Your task to perform on an android device: toggle airplane mode Image 0: 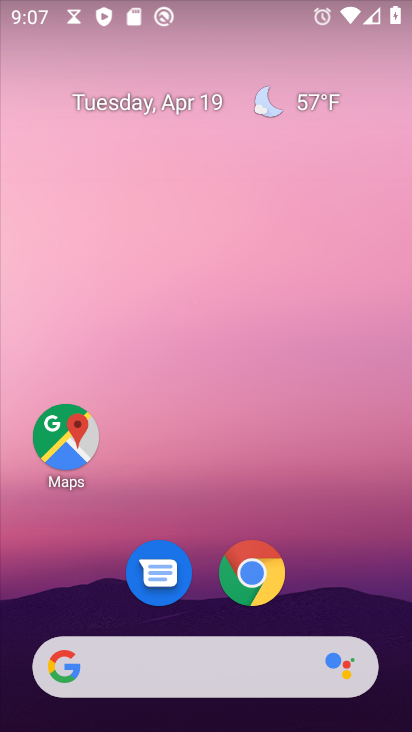
Step 0: drag from (351, 507) to (321, 107)
Your task to perform on an android device: toggle airplane mode Image 1: 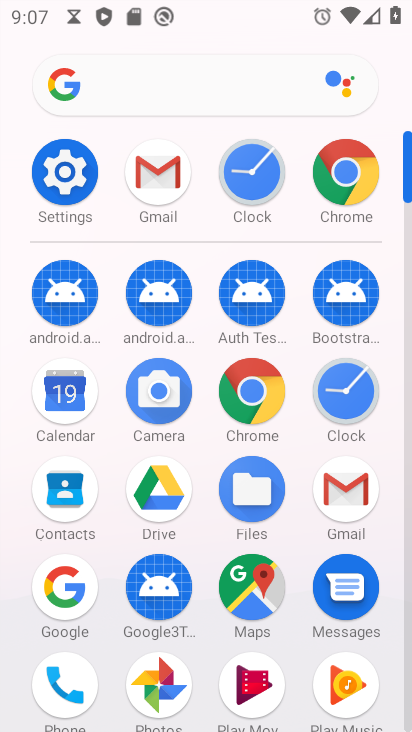
Step 1: click (85, 183)
Your task to perform on an android device: toggle airplane mode Image 2: 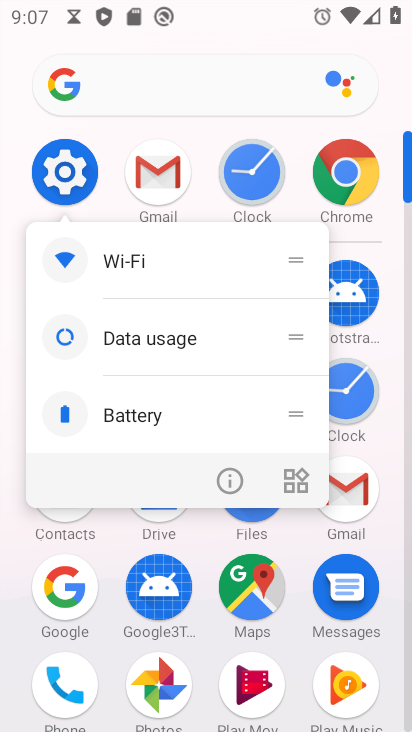
Step 2: click (55, 188)
Your task to perform on an android device: toggle airplane mode Image 3: 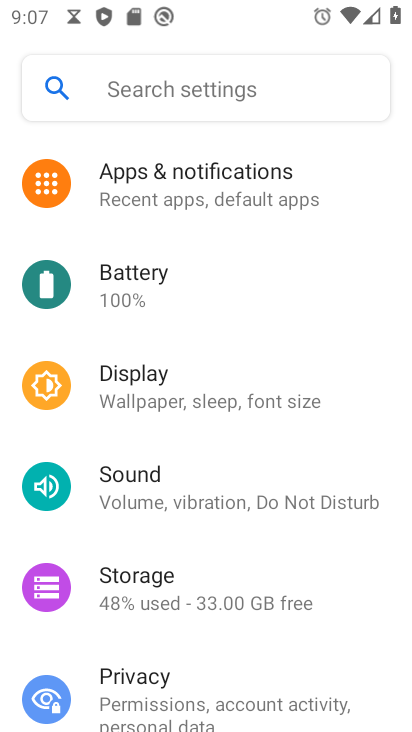
Step 3: drag from (245, 221) to (202, 566)
Your task to perform on an android device: toggle airplane mode Image 4: 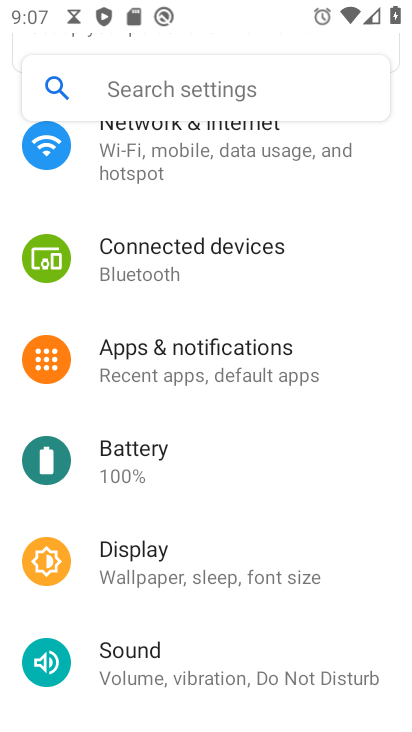
Step 4: click (239, 159)
Your task to perform on an android device: toggle airplane mode Image 5: 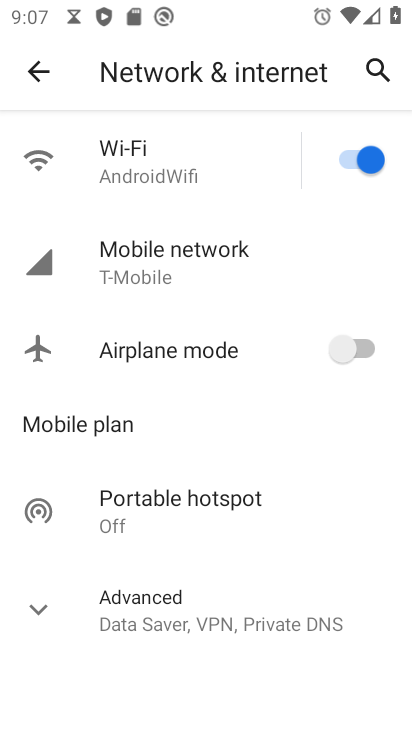
Step 5: click (365, 341)
Your task to perform on an android device: toggle airplane mode Image 6: 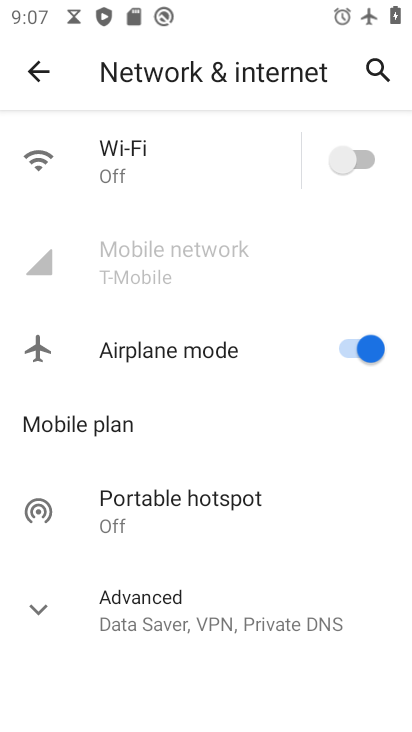
Step 6: task complete